Your task to perform on an android device: make emails show in primary in the gmail app Image 0: 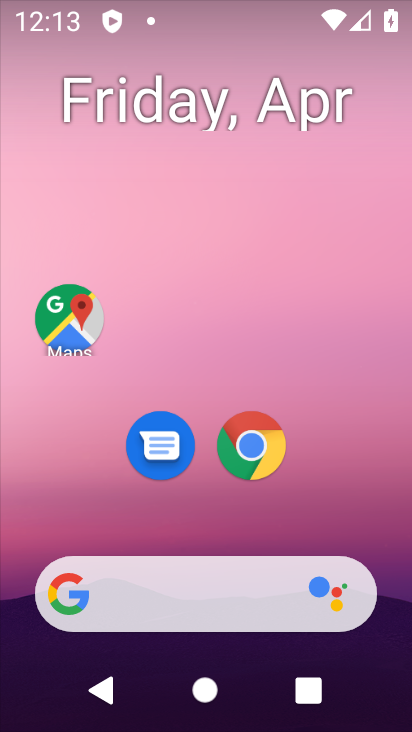
Step 0: click (345, 462)
Your task to perform on an android device: make emails show in primary in the gmail app Image 1: 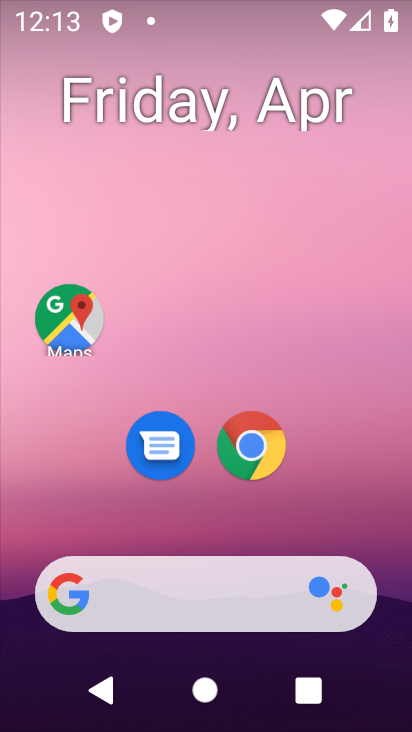
Step 1: drag from (328, 499) to (271, 47)
Your task to perform on an android device: make emails show in primary in the gmail app Image 2: 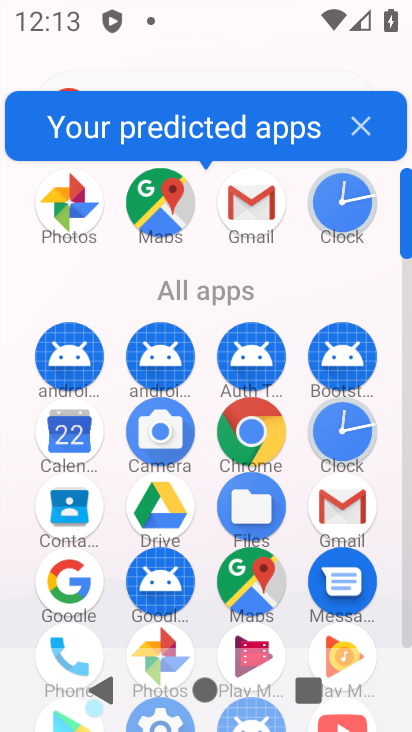
Step 2: click (251, 208)
Your task to perform on an android device: make emails show in primary in the gmail app Image 3: 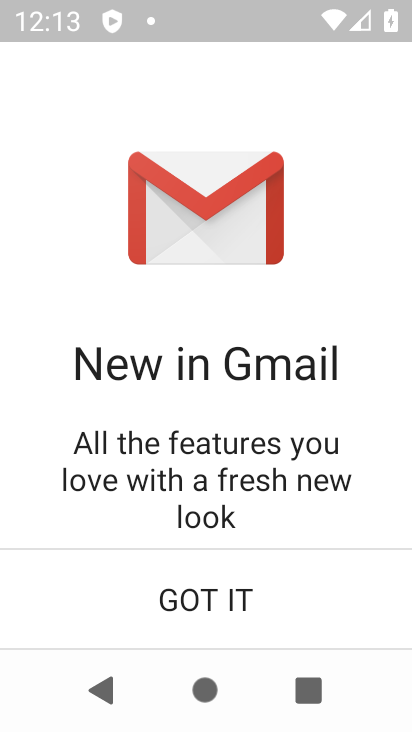
Step 3: click (214, 571)
Your task to perform on an android device: make emails show in primary in the gmail app Image 4: 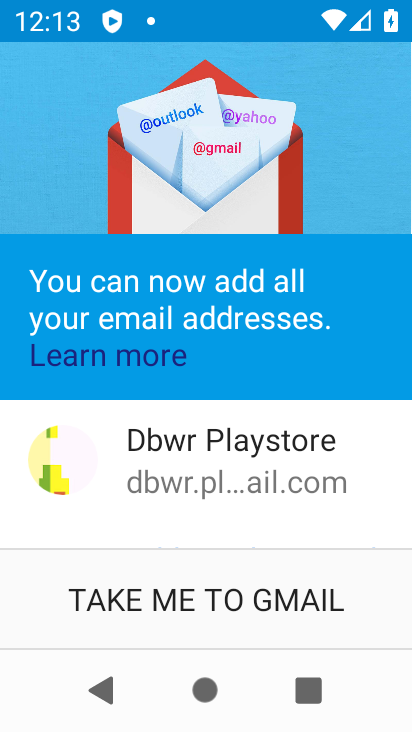
Step 4: click (214, 571)
Your task to perform on an android device: make emails show in primary in the gmail app Image 5: 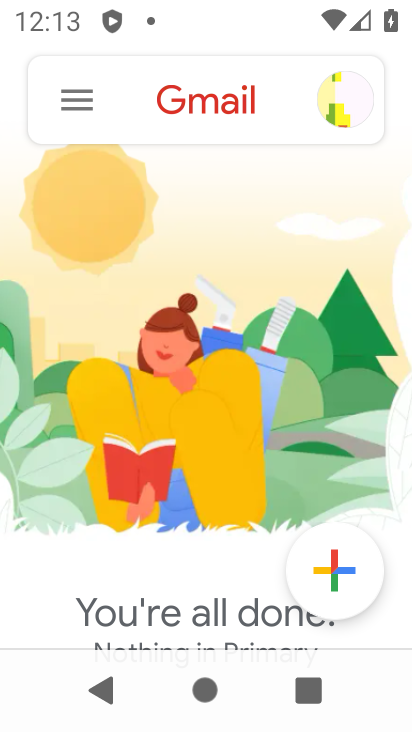
Step 5: click (87, 115)
Your task to perform on an android device: make emails show in primary in the gmail app Image 6: 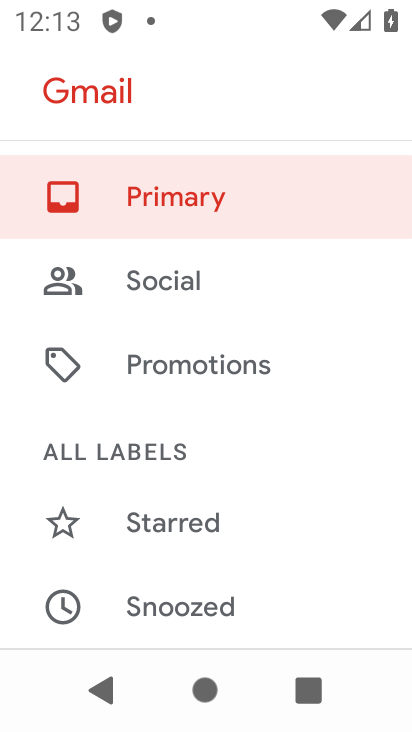
Step 6: drag from (140, 548) to (117, 149)
Your task to perform on an android device: make emails show in primary in the gmail app Image 7: 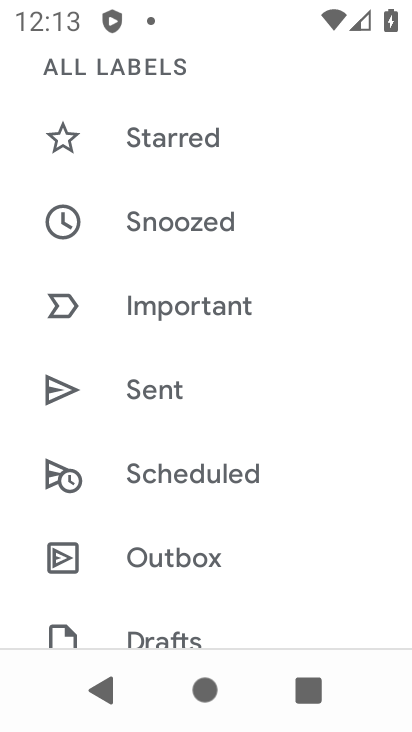
Step 7: drag from (141, 560) to (166, 156)
Your task to perform on an android device: make emails show in primary in the gmail app Image 8: 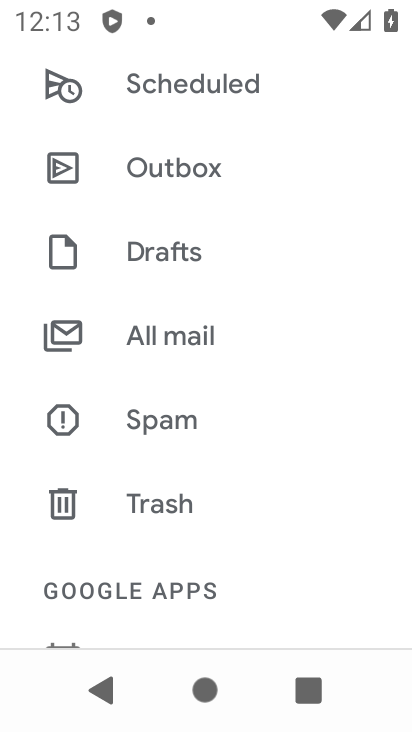
Step 8: drag from (136, 500) to (104, 50)
Your task to perform on an android device: make emails show in primary in the gmail app Image 9: 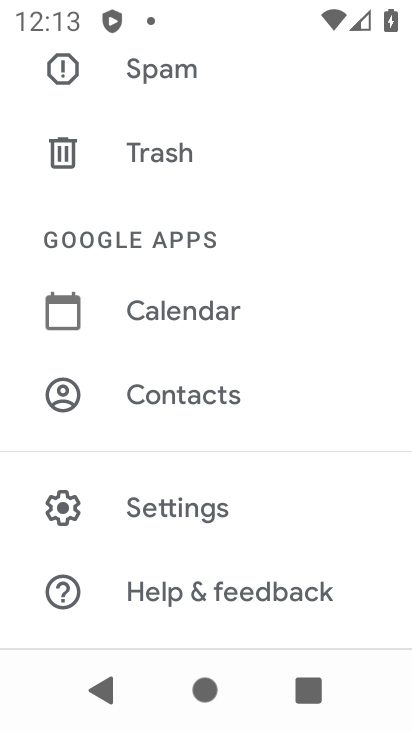
Step 9: click (159, 485)
Your task to perform on an android device: make emails show in primary in the gmail app Image 10: 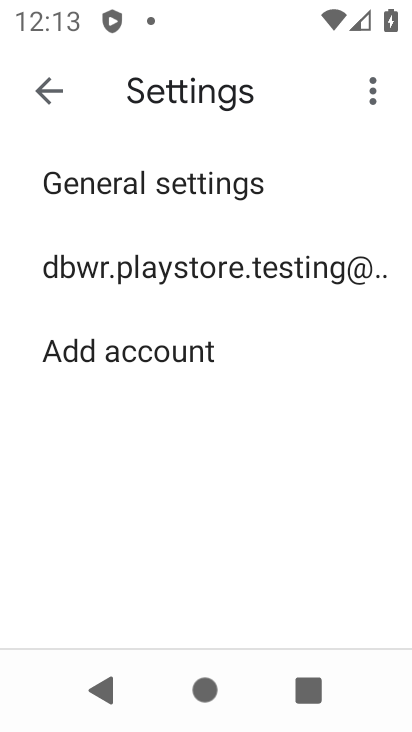
Step 10: click (87, 187)
Your task to perform on an android device: make emails show in primary in the gmail app Image 11: 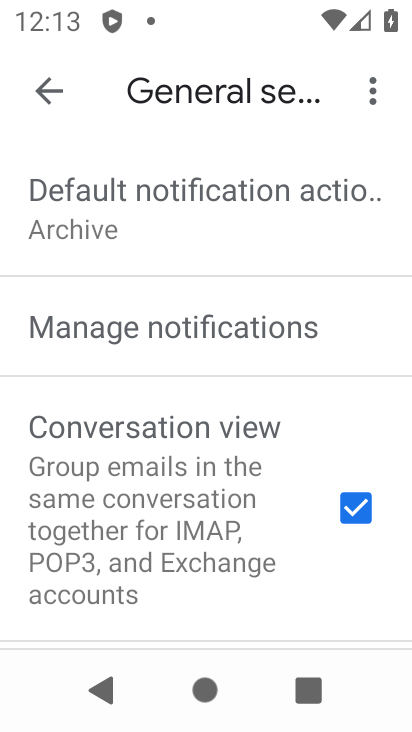
Step 11: drag from (121, 474) to (116, 217)
Your task to perform on an android device: make emails show in primary in the gmail app Image 12: 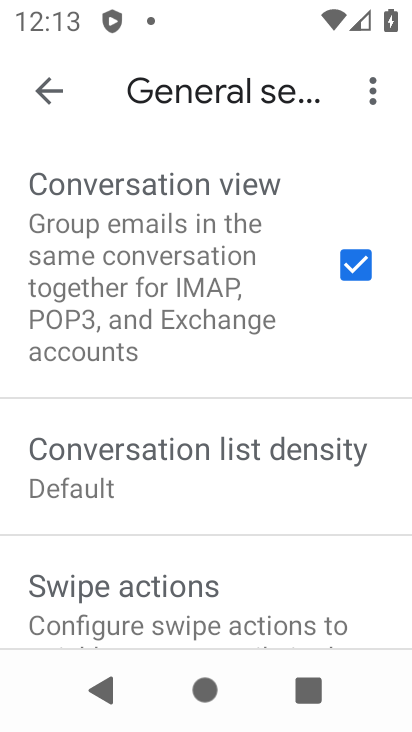
Step 12: drag from (146, 522) to (157, 180)
Your task to perform on an android device: make emails show in primary in the gmail app Image 13: 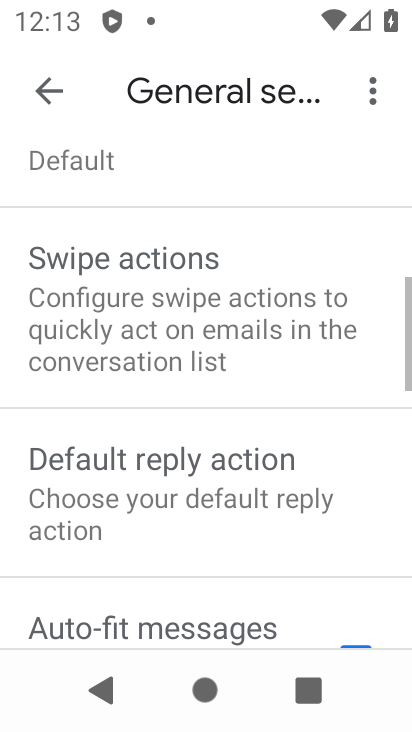
Step 13: drag from (156, 407) to (152, 175)
Your task to perform on an android device: make emails show in primary in the gmail app Image 14: 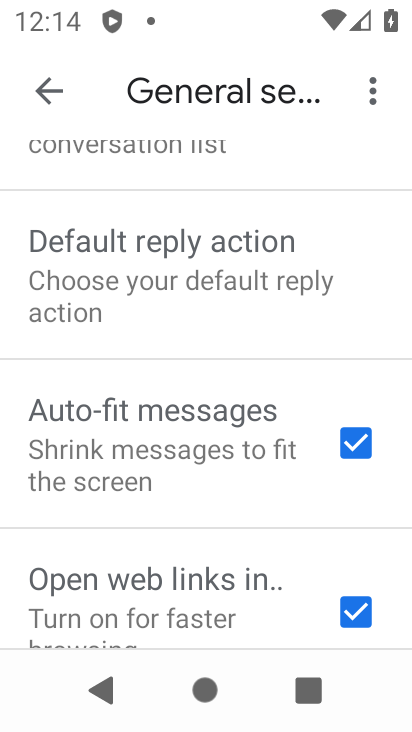
Step 14: drag from (154, 451) to (102, 144)
Your task to perform on an android device: make emails show in primary in the gmail app Image 15: 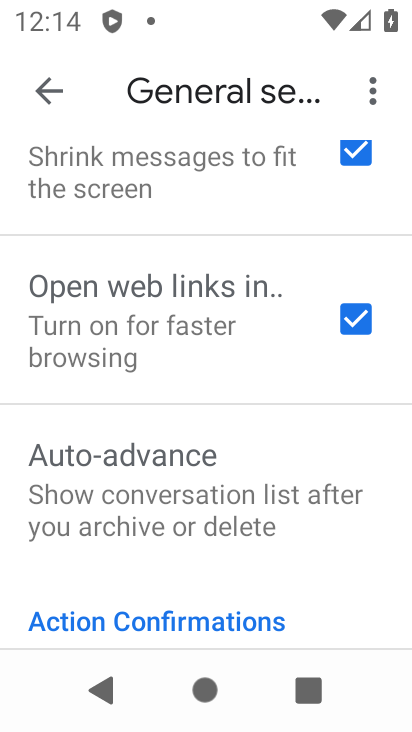
Step 15: drag from (97, 526) to (102, 185)
Your task to perform on an android device: make emails show in primary in the gmail app Image 16: 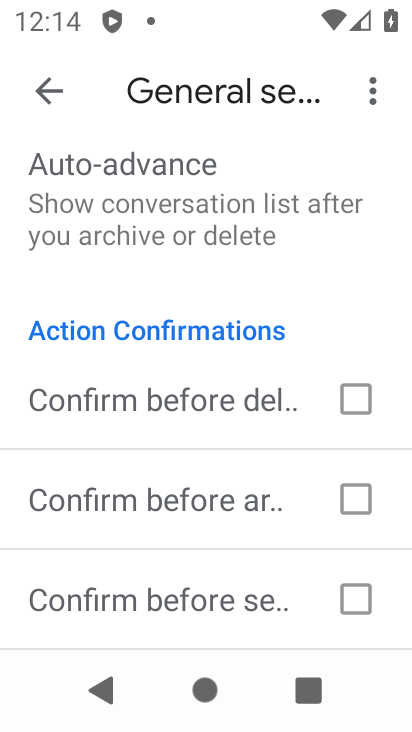
Step 16: drag from (47, 437) to (33, 134)
Your task to perform on an android device: make emails show in primary in the gmail app Image 17: 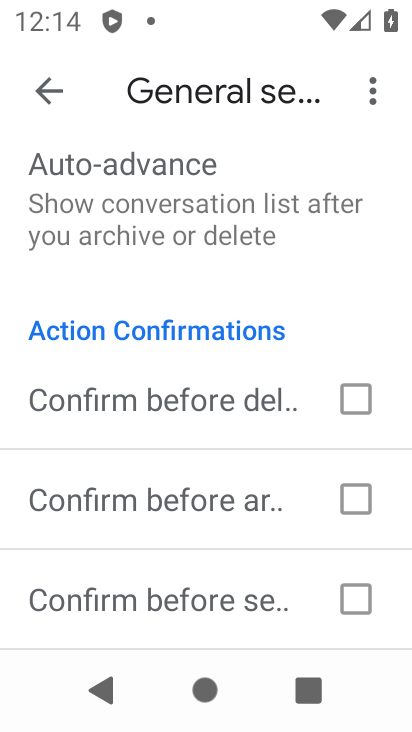
Step 17: drag from (103, 521) to (129, 349)
Your task to perform on an android device: make emails show in primary in the gmail app Image 18: 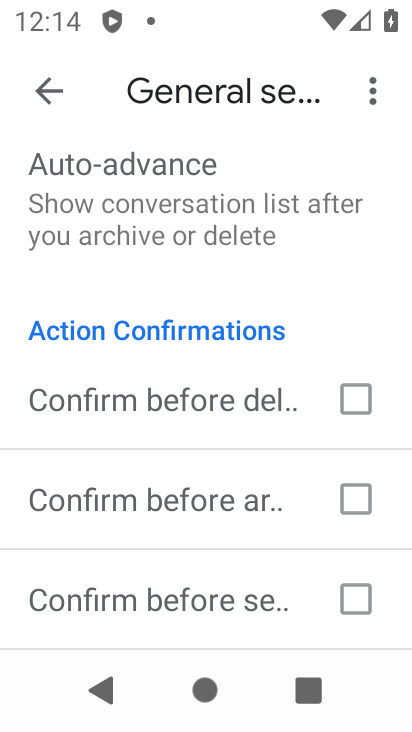
Step 18: click (59, 97)
Your task to perform on an android device: make emails show in primary in the gmail app Image 19: 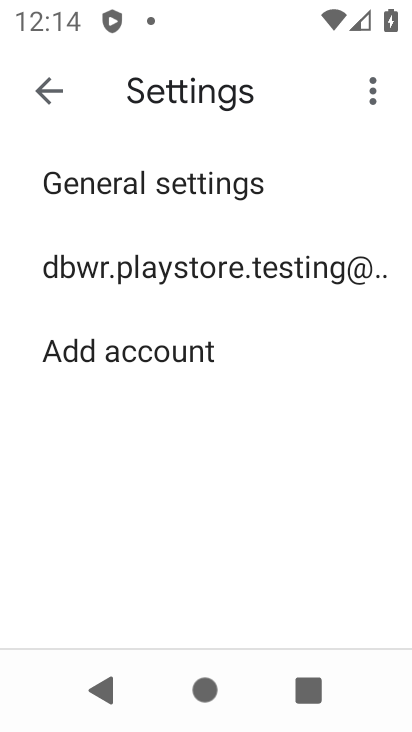
Step 19: click (117, 256)
Your task to perform on an android device: make emails show in primary in the gmail app Image 20: 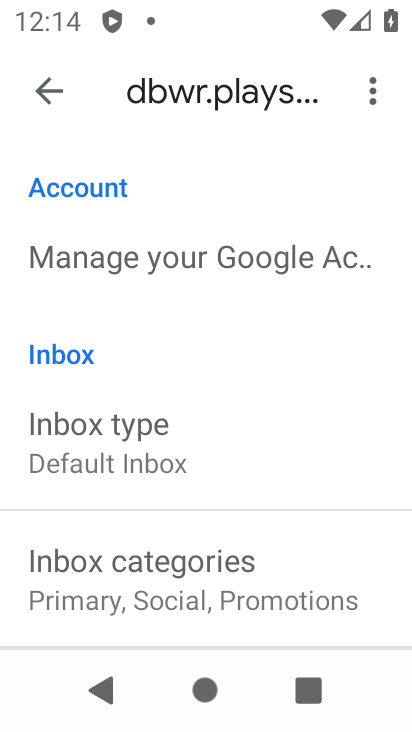
Step 20: drag from (252, 468) to (244, 186)
Your task to perform on an android device: make emails show in primary in the gmail app Image 21: 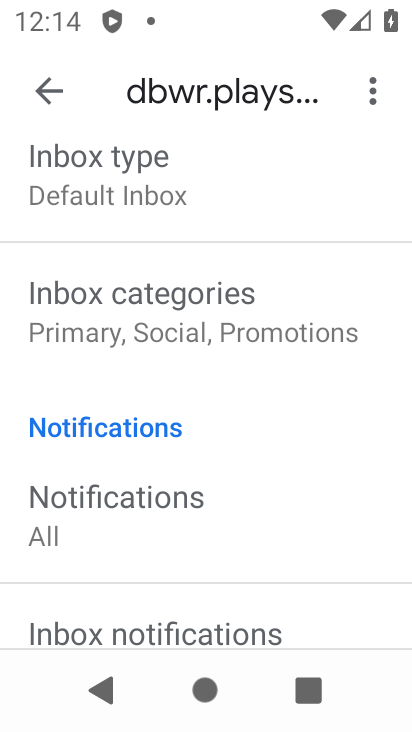
Step 21: drag from (222, 524) to (182, 197)
Your task to perform on an android device: make emails show in primary in the gmail app Image 22: 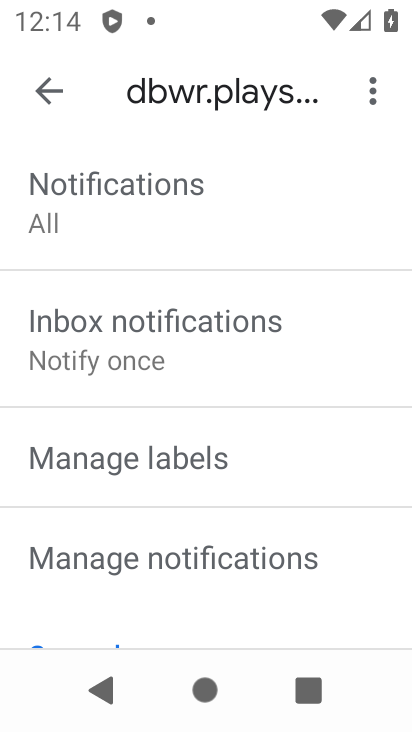
Step 22: drag from (218, 498) to (210, 369)
Your task to perform on an android device: make emails show in primary in the gmail app Image 23: 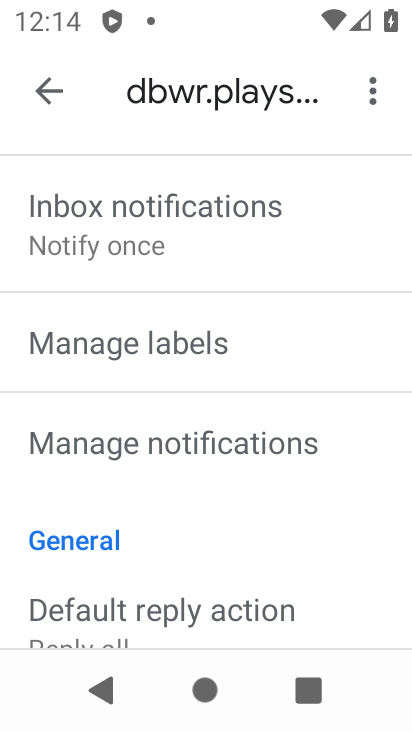
Step 23: drag from (238, 265) to (105, 587)
Your task to perform on an android device: make emails show in primary in the gmail app Image 24: 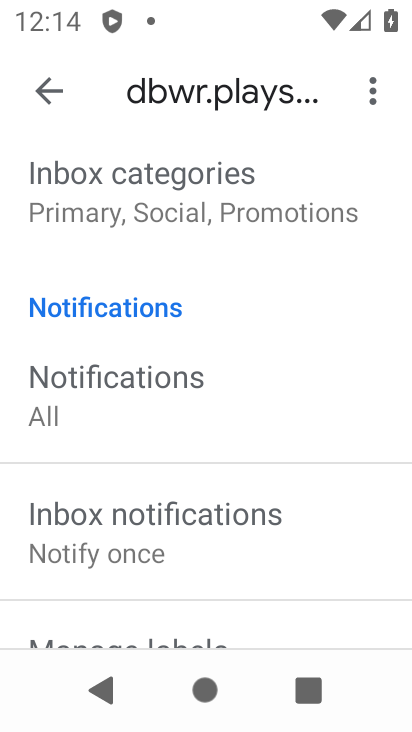
Step 24: click (209, 185)
Your task to perform on an android device: make emails show in primary in the gmail app Image 25: 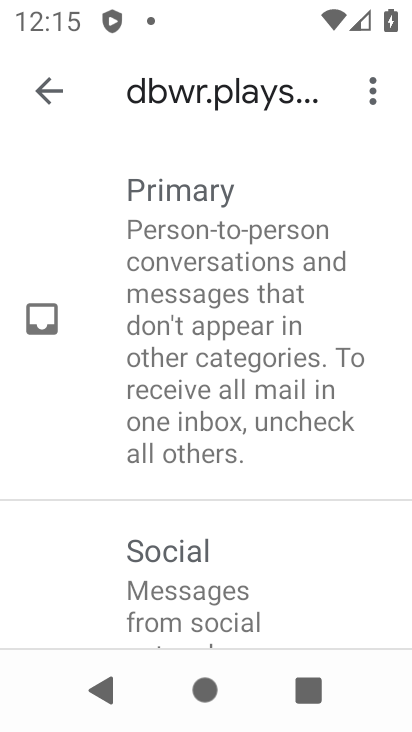
Step 25: click (195, 298)
Your task to perform on an android device: make emails show in primary in the gmail app Image 26: 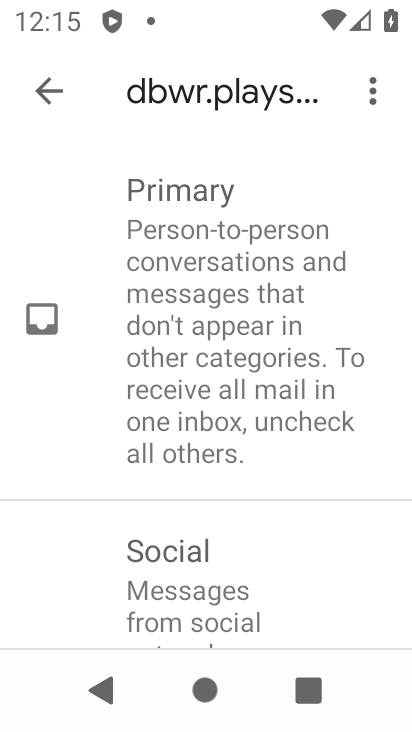
Step 26: click (382, 89)
Your task to perform on an android device: make emails show in primary in the gmail app Image 27: 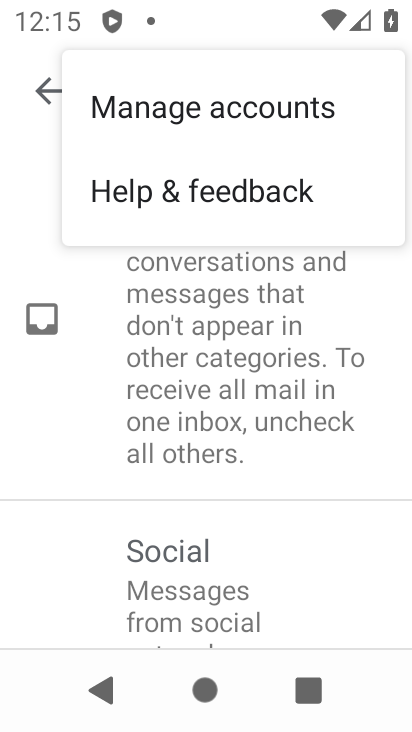
Step 27: click (301, 400)
Your task to perform on an android device: make emails show in primary in the gmail app Image 28: 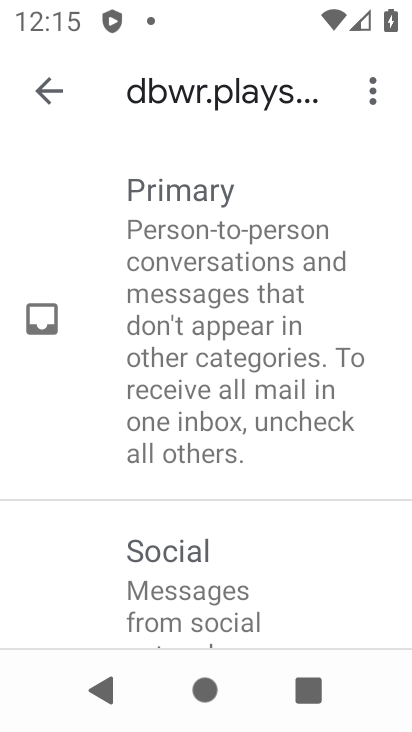
Step 28: task complete